Your task to perform on an android device: Add "dell alienware" to the cart on amazon.com Image 0: 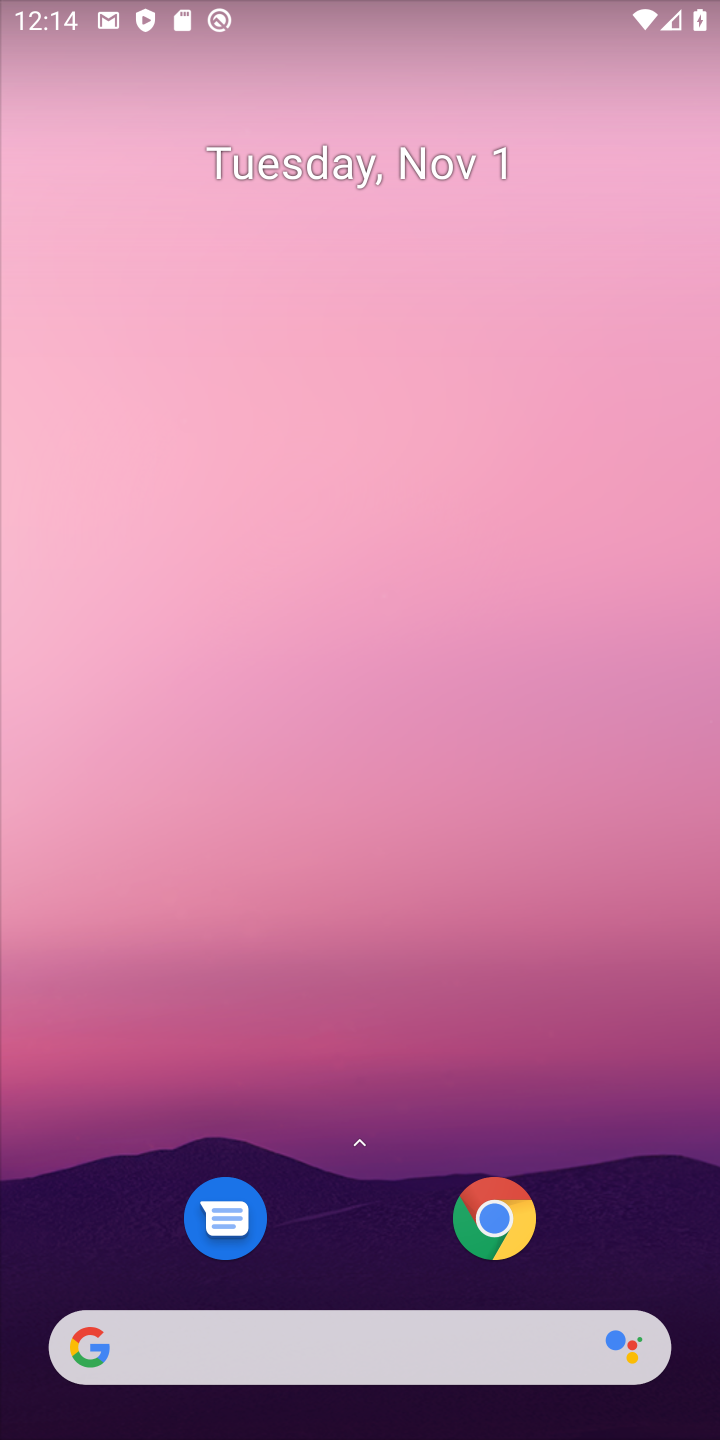
Step 0: drag from (378, 1201) to (400, 12)
Your task to perform on an android device: Add "dell alienware" to the cart on amazon.com Image 1: 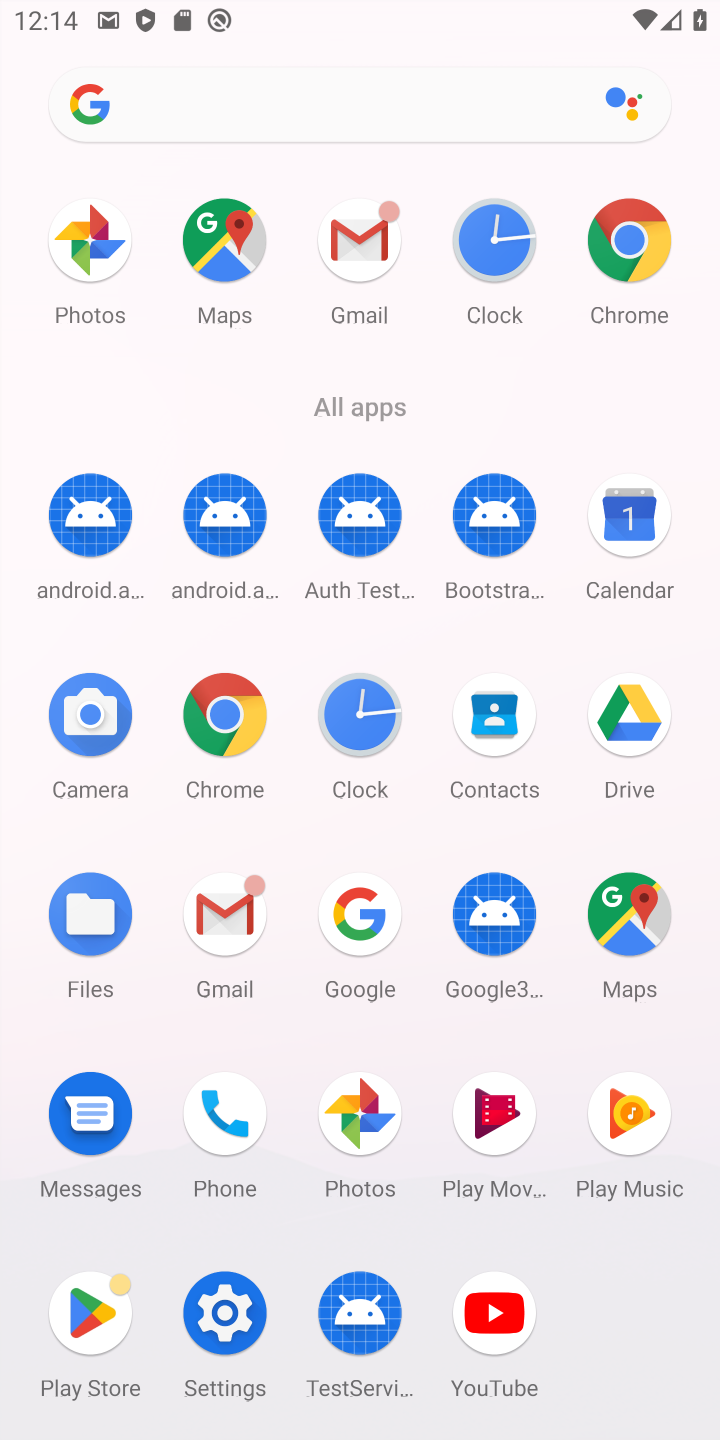
Step 1: click (216, 727)
Your task to perform on an android device: Add "dell alienware" to the cart on amazon.com Image 2: 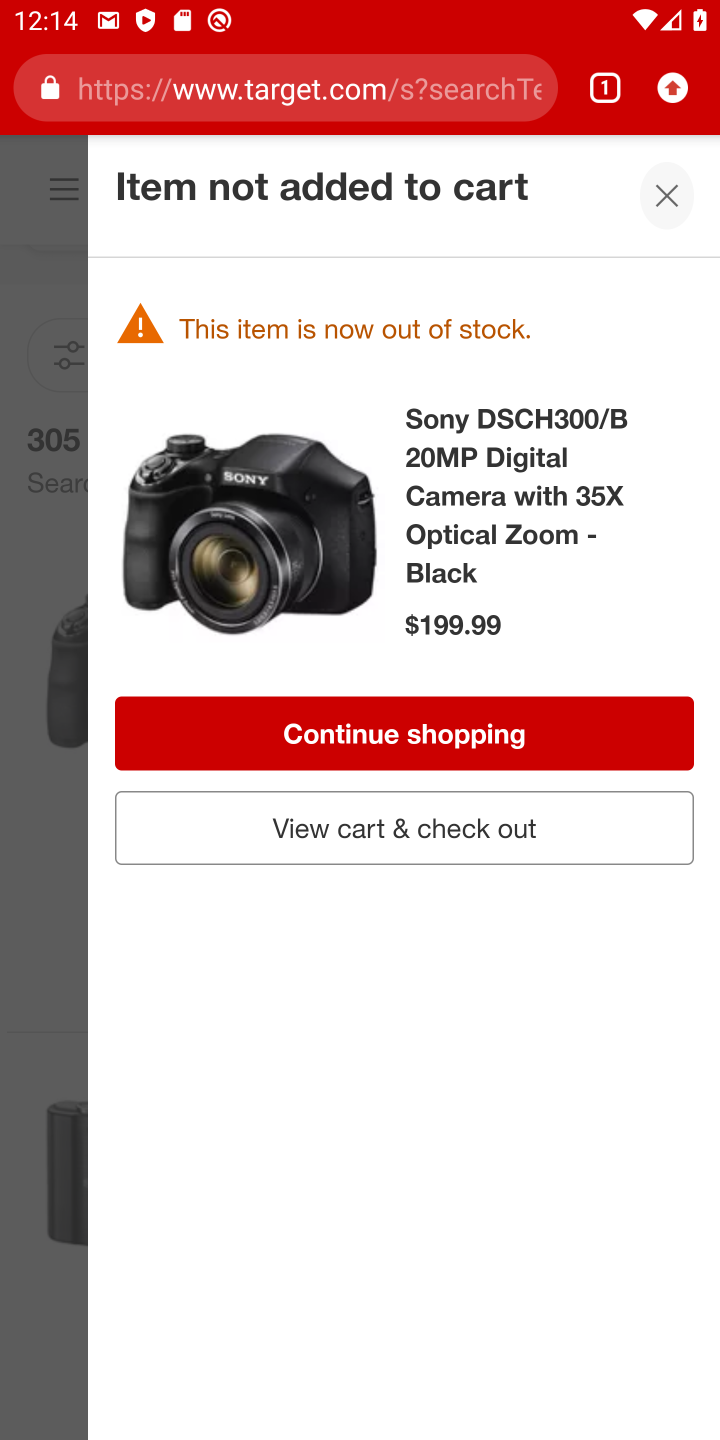
Step 2: click (386, 88)
Your task to perform on an android device: Add "dell alienware" to the cart on amazon.com Image 3: 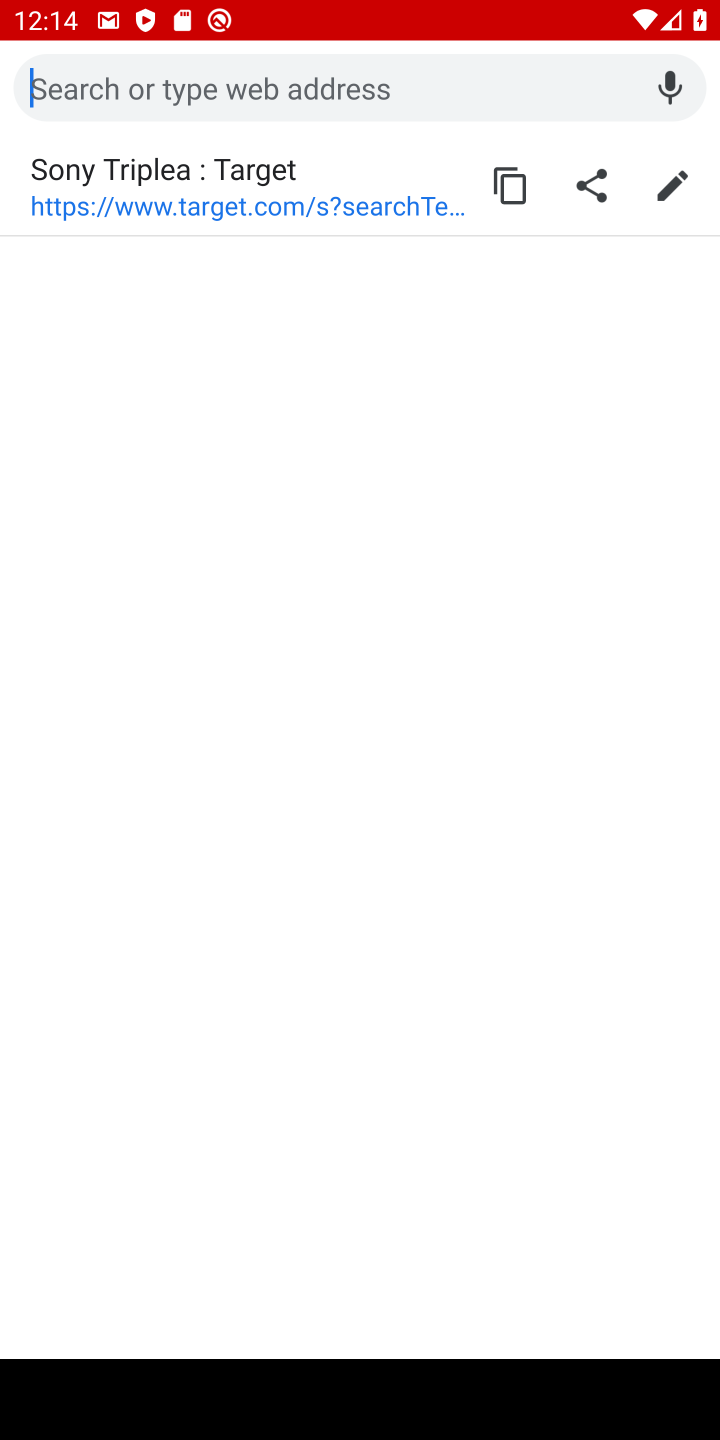
Step 3: type " amazon.com"
Your task to perform on an android device: Add "dell alienware" to the cart on amazon.com Image 4: 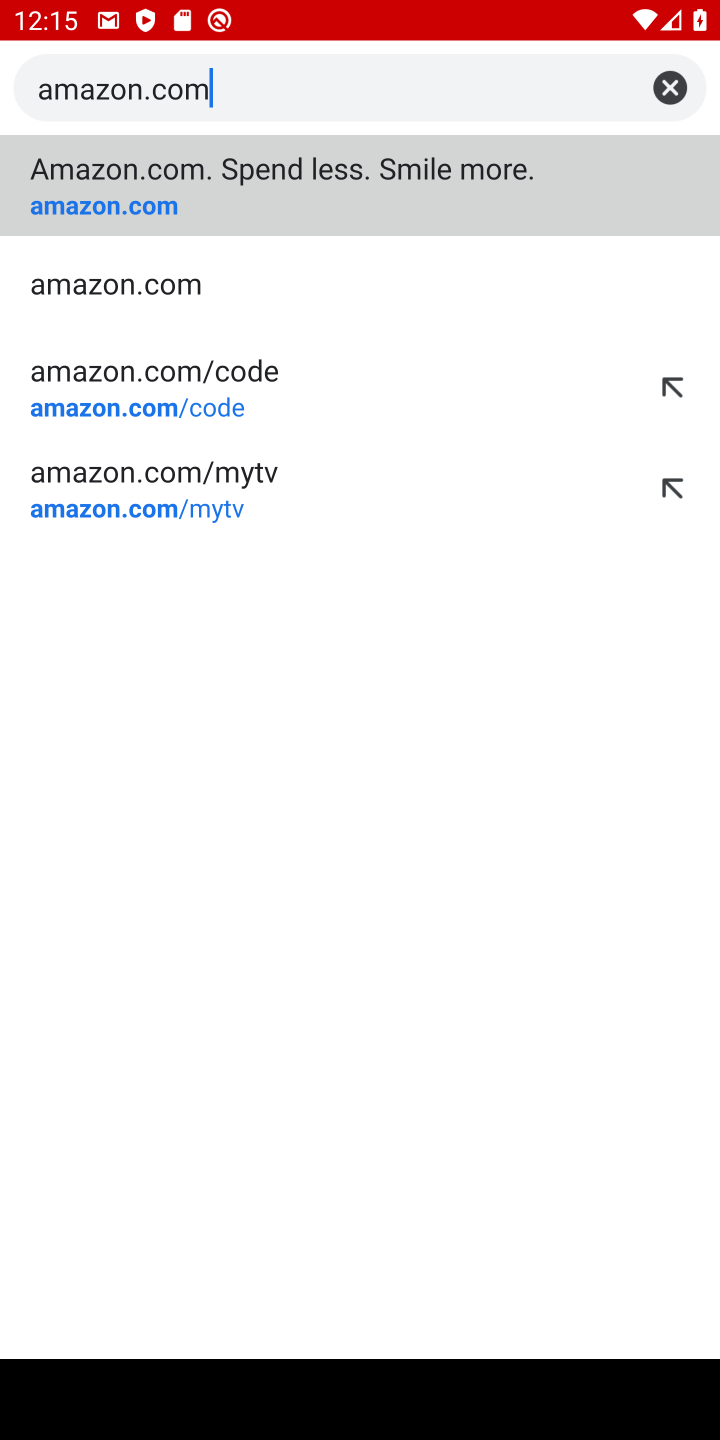
Step 4: click (53, 199)
Your task to perform on an android device: Add "dell alienware" to the cart on amazon.com Image 5: 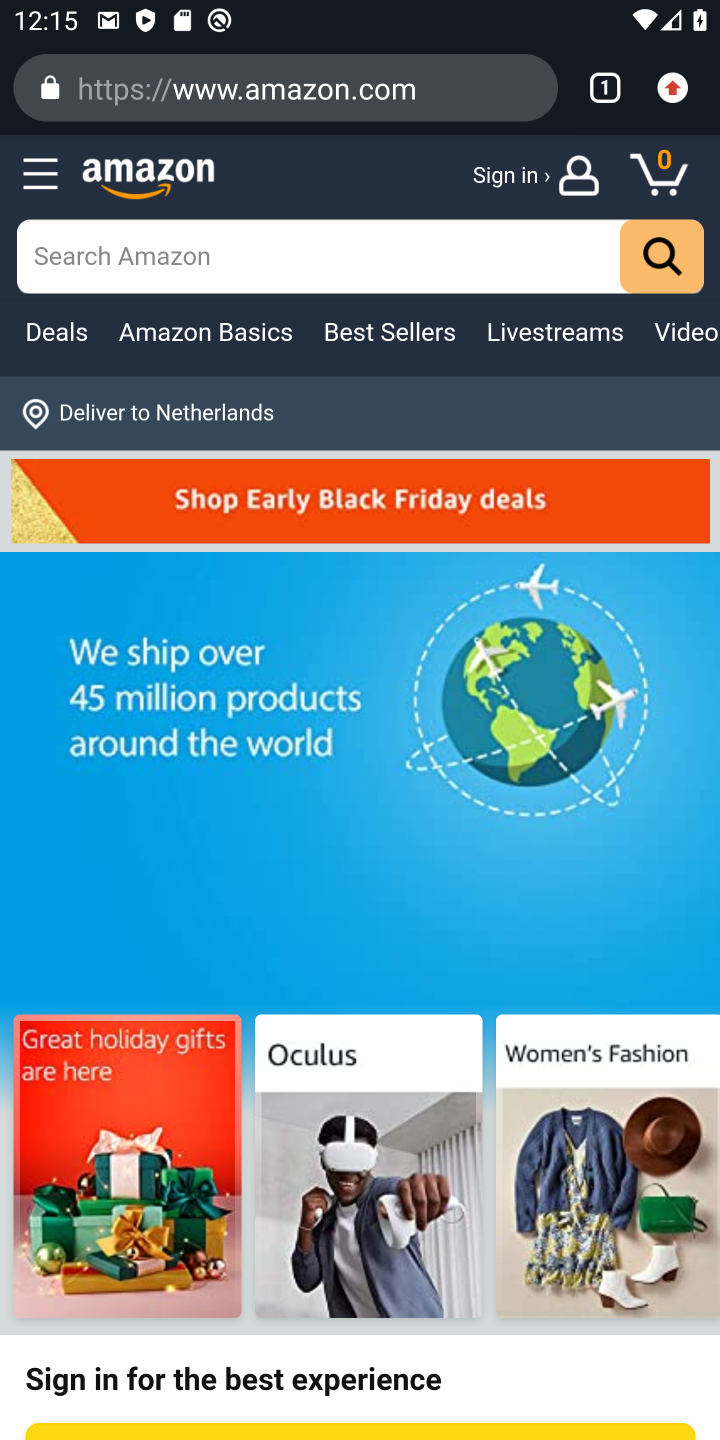
Step 5: click (230, 261)
Your task to perform on an android device: Add "dell alienware" to the cart on amazon.com Image 6: 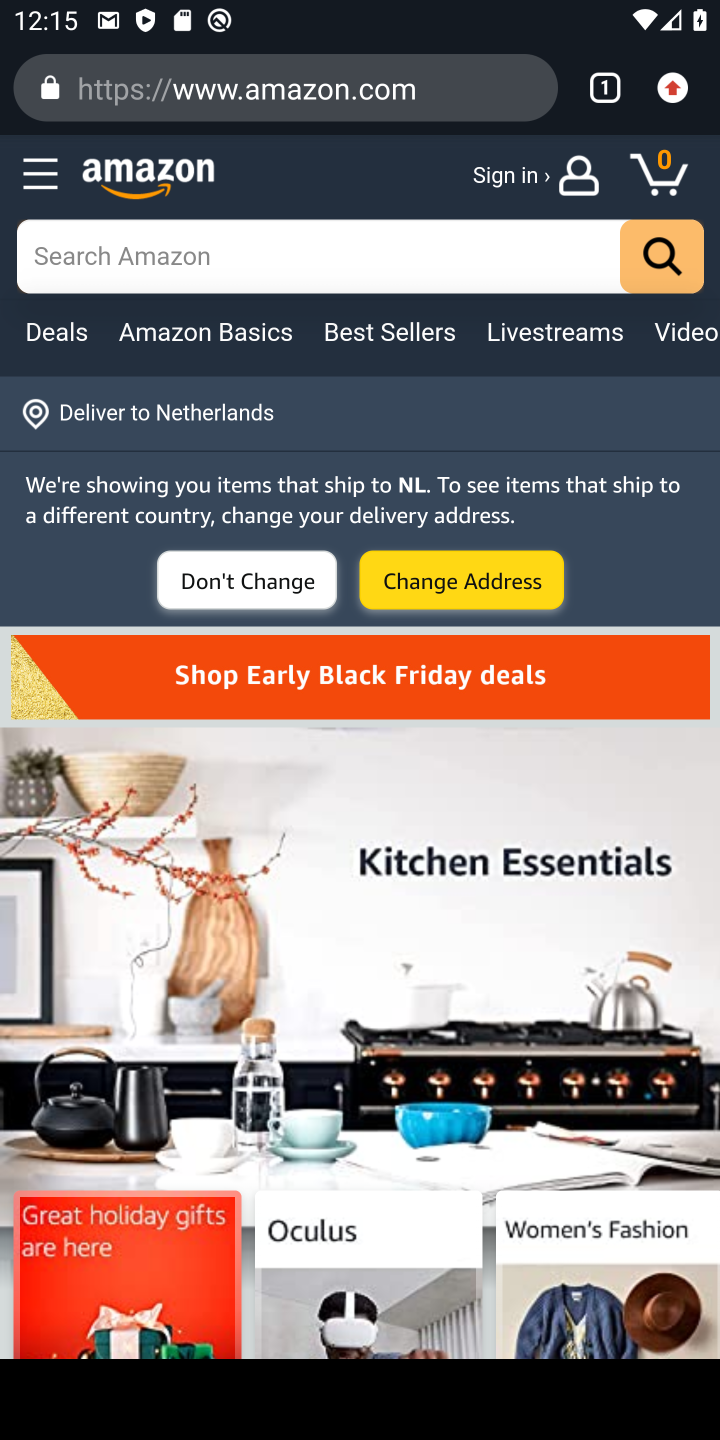
Step 6: click (196, 234)
Your task to perform on an android device: Add "dell alienware" to the cart on amazon.com Image 7: 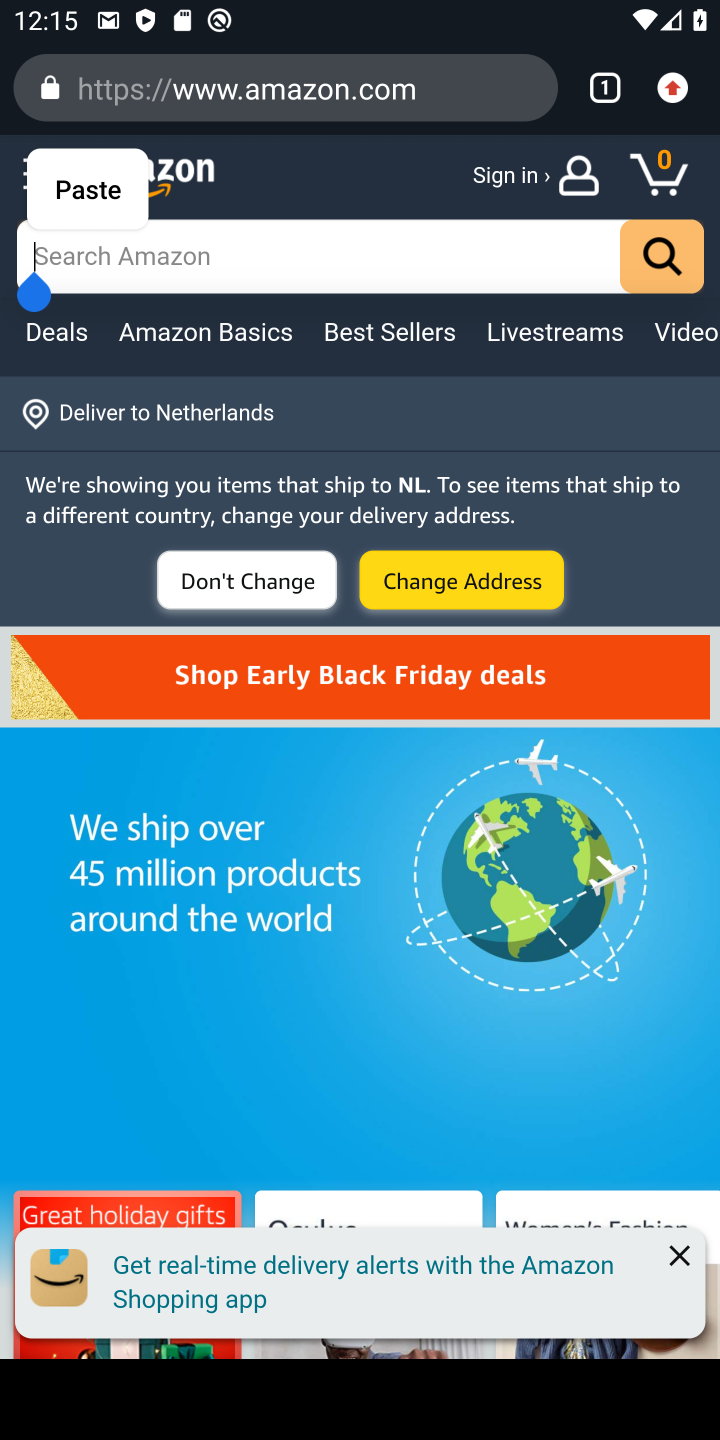
Step 7: type "dell alienware"
Your task to perform on an android device: Add "dell alienware" to the cart on amazon.com Image 8: 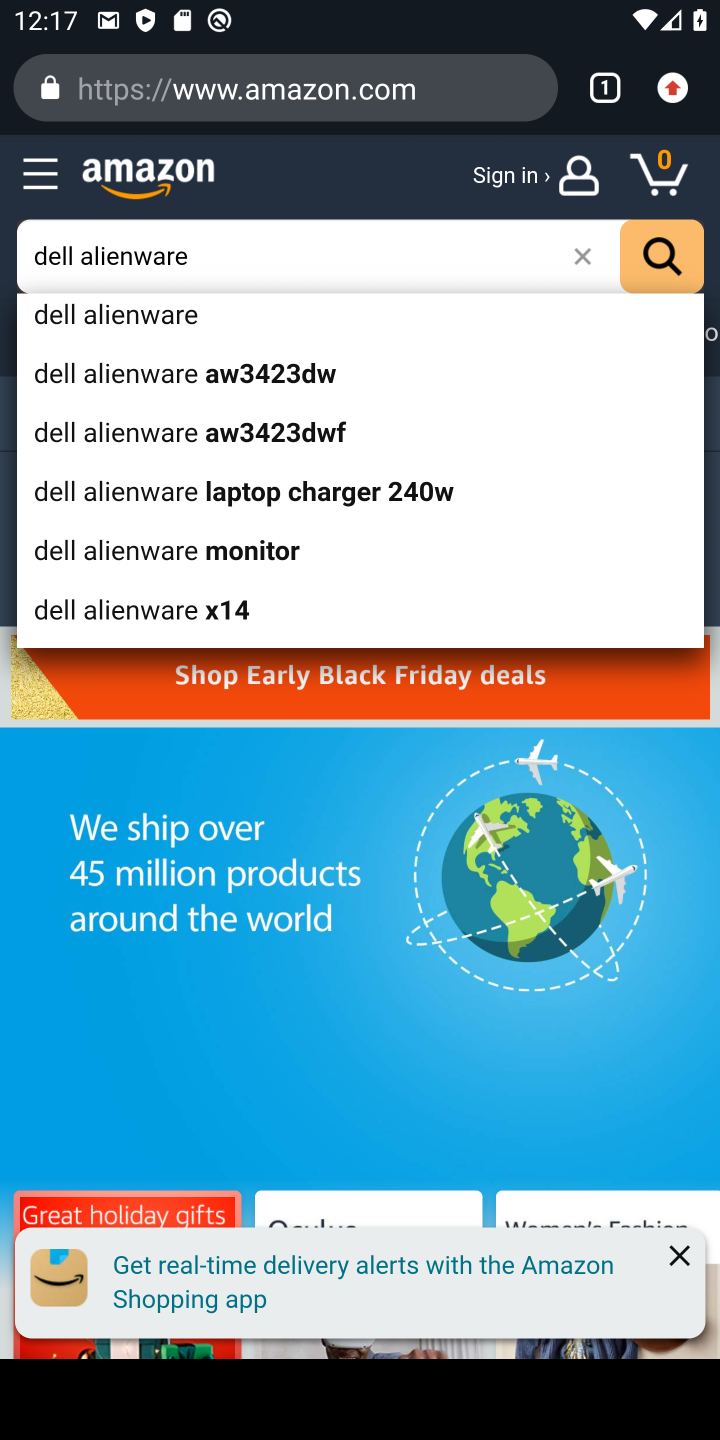
Step 8: click (665, 257)
Your task to perform on an android device: Add "dell alienware" to the cart on amazon.com Image 9: 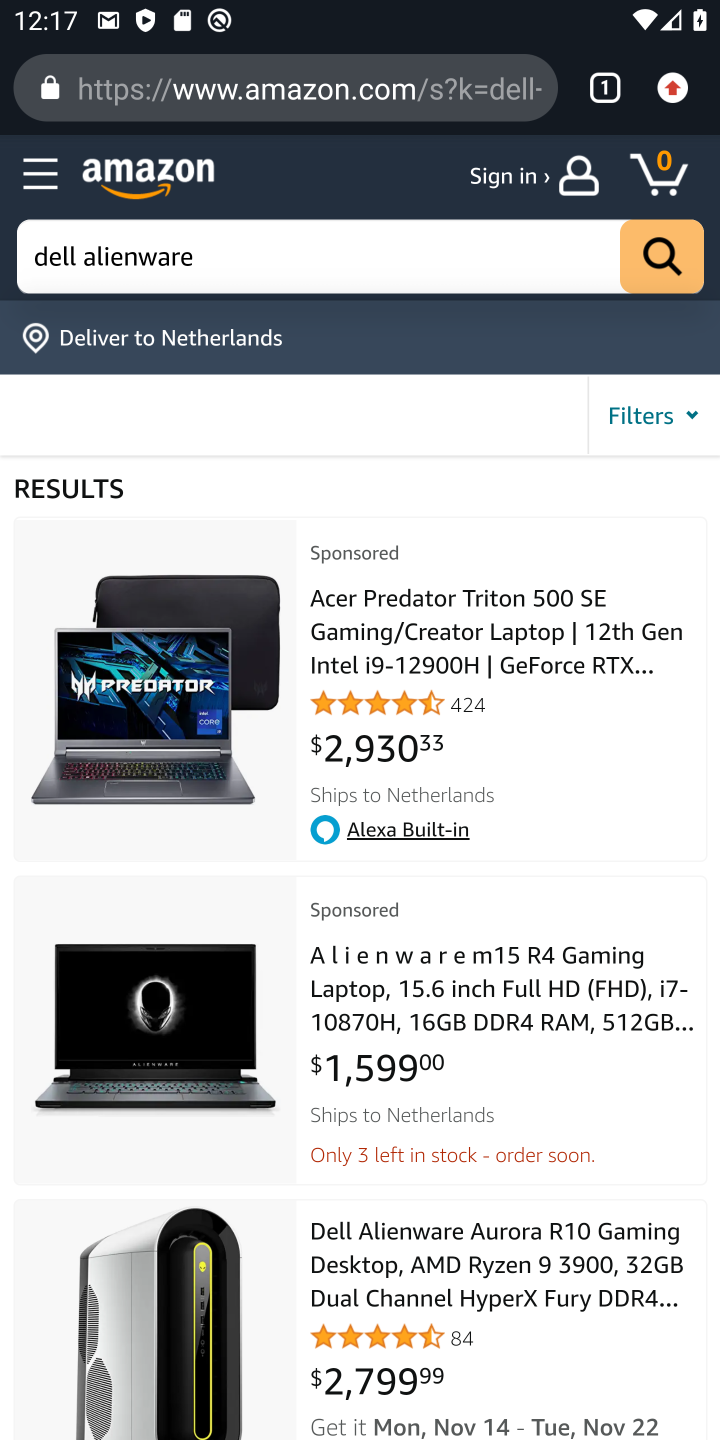
Step 9: click (137, 664)
Your task to perform on an android device: Add "dell alienware" to the cart on amazon.com Image 10: 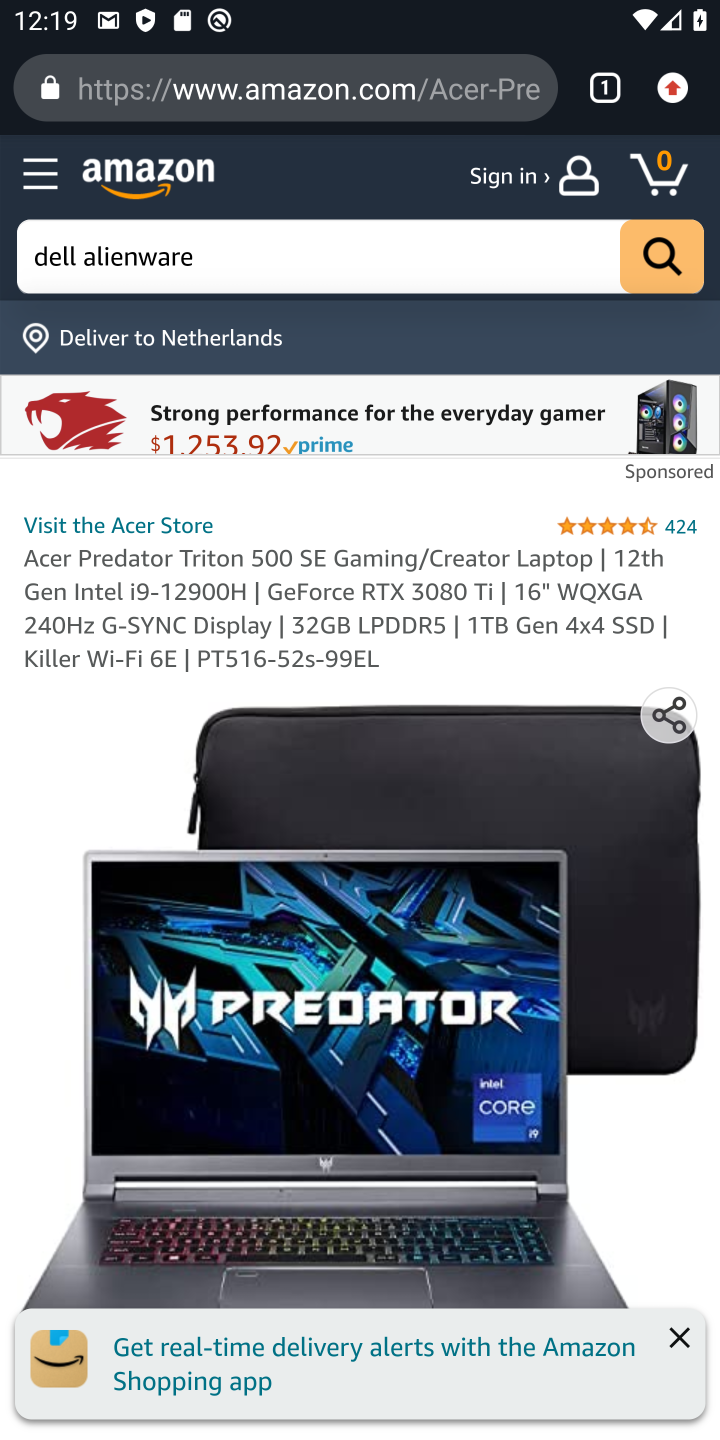
Step 10: task complete